Your task to perform on an android device: turn off data saver in the chrome app Image 0: 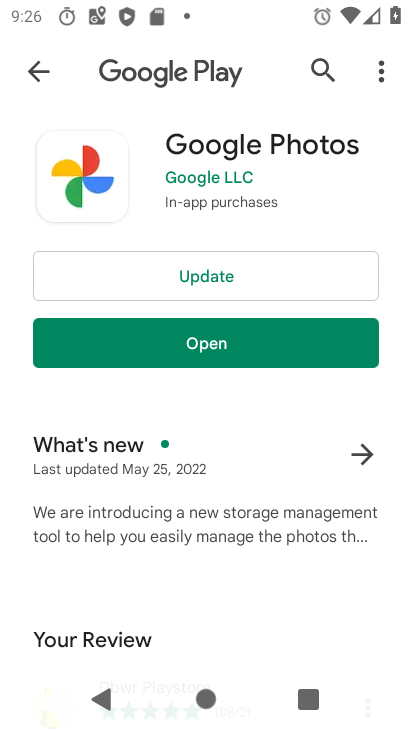
Step 0: press home button
Your task to perform on an android device: turn off data saver in the chrome app Image 1: 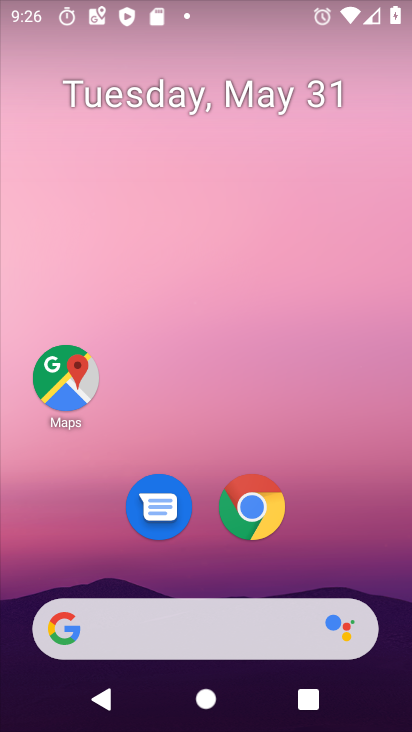
Step 1: click (256, 515)
Your task to perform on an android device: turn off data saver in the chrome app Image 2: 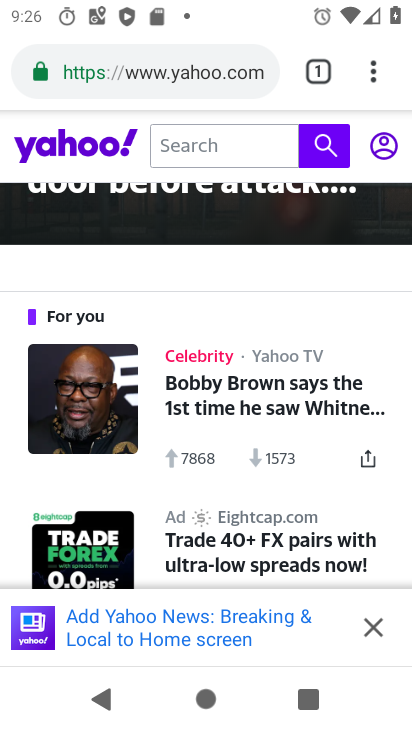
Step 2: click (375, 79)
Your task to perform on an android device: turn off data saver in the chrome app Image 3: 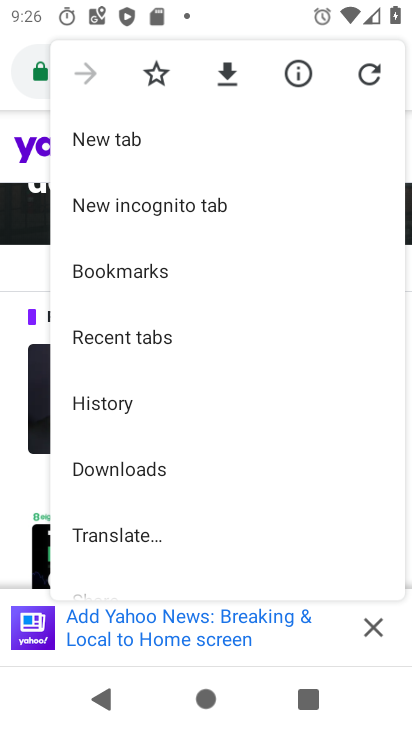
Step 3: drag from (253, 520) to (216, 141)
Your task to perform on an android device: turn off data saver in the chrome app Image 4: 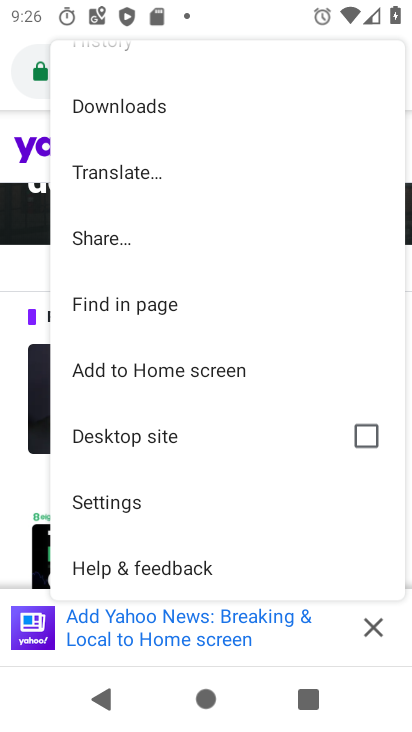
Step 4: drag from (230, 510) to (208, 199)
Your task to perform on an android device: turn off data saver in the chrome app Image 5: 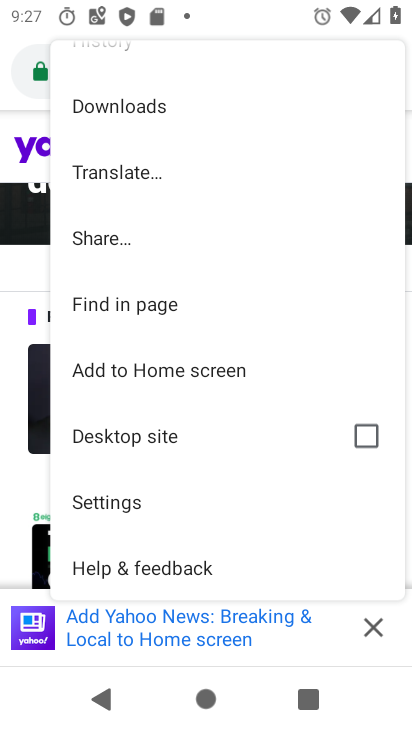
Step 5: click (99, 505)
Your task to perform on an android device: turn off data saver in the chrome app Image 6: 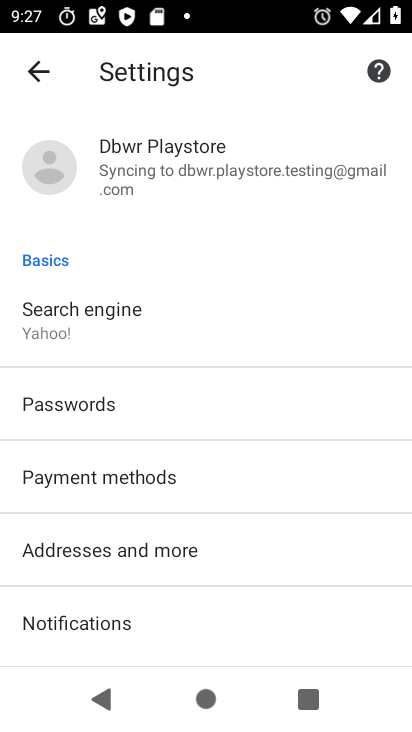
Step 6: drag from (246, 583) to (228, 149)
Your task to perform on an android device: turn off data saver in the chrome app Image 7: 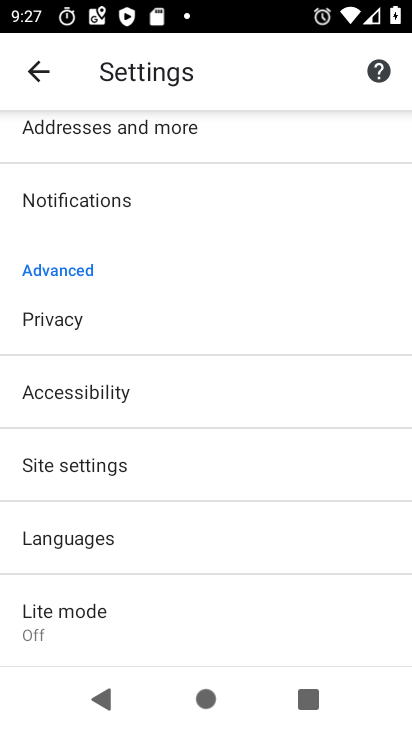
Step 7: drag from (222, 492) to (205, 253)
Your task to perform on an android device: turn off data saver in the chrome app Image 8: 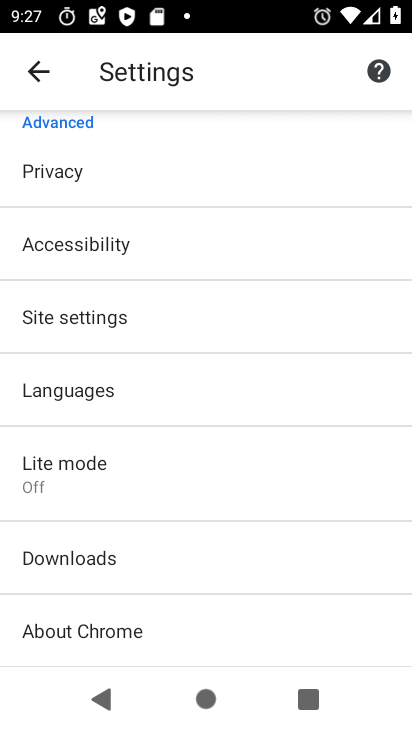
Step 8: click (26, 468)
Your task to perform on an android device: turn off data saver in the chrome app Image 9: 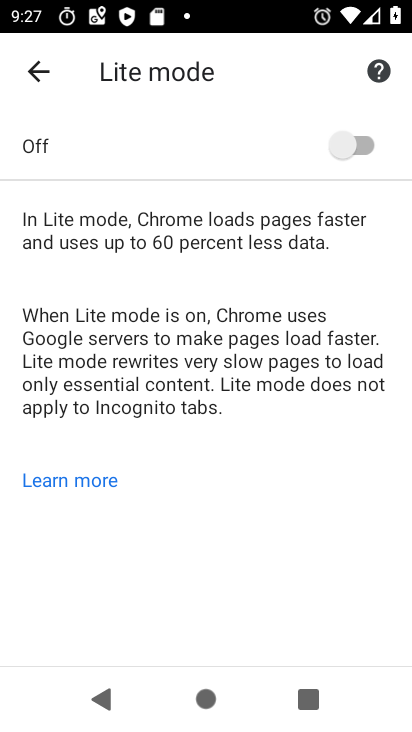
Step 9: task complete